Your task to perform on an android device: turn on bluetooth scan Image 0: 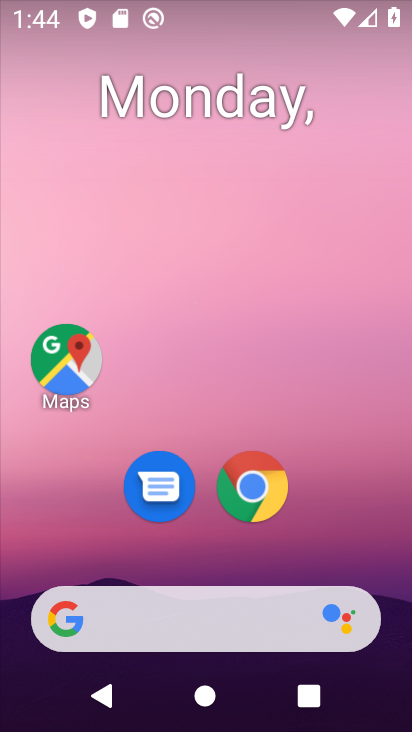
Step 0: drag from (176, 587) to (305, 61)
Your task to perform on an android device: turn on bluetooth scan Image 1: 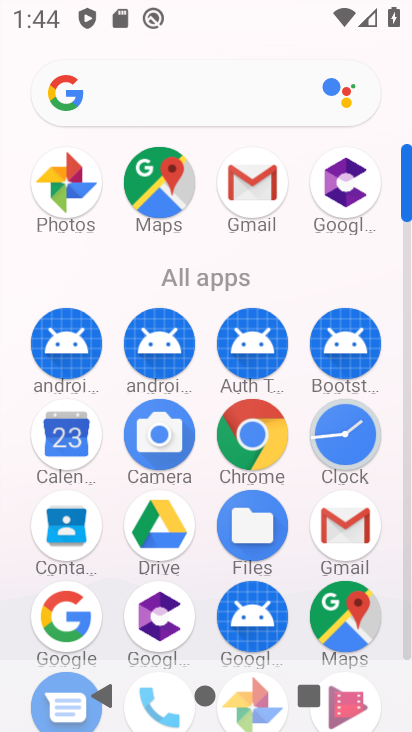
Step 1: drag from (205, 586) to (296, 220)
Your task to perform on an android device: turn on bluetooth scan Image 2: 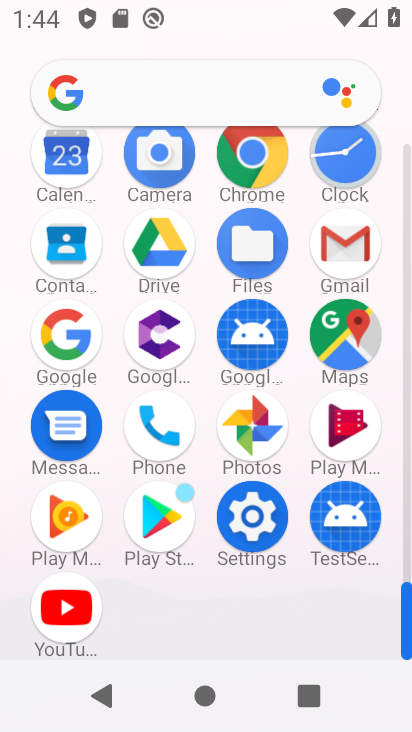
Step 2: click (249, 533)
Your task to perform on an android device: turn on bluetooth scan Image 3: 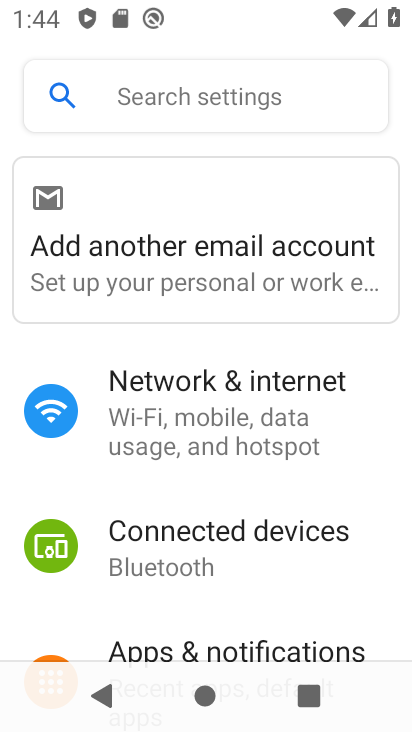
Step 3: drag from (241, 613) to (361, 329)
Your task to perform on an android device: turn on bluetooth scan Image 4: 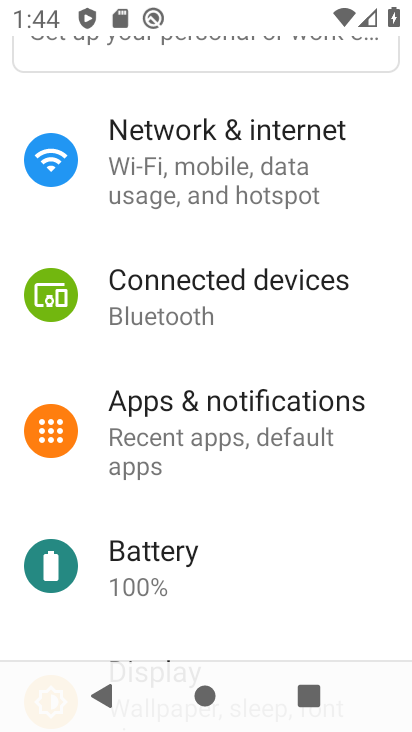
Step 4: drag from (319, 527) to (392, 262)
Your task to perform on an android device: turn on bluetooth scan Image 5: 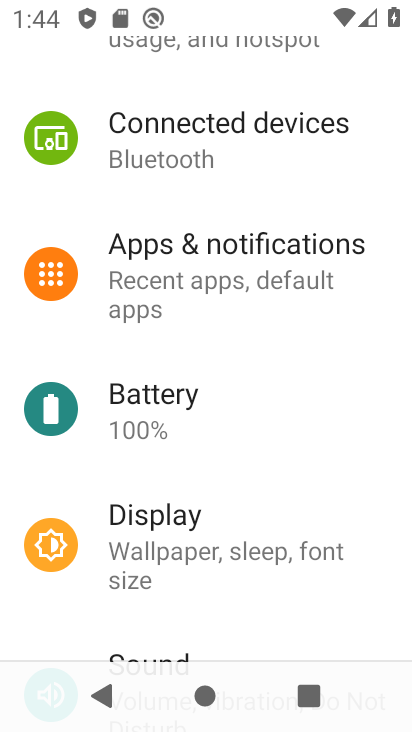
Step 5: drag from (217, 567) to (270, 271)
Your task to perform on an android device: turn on bluetooth scan Image 6: 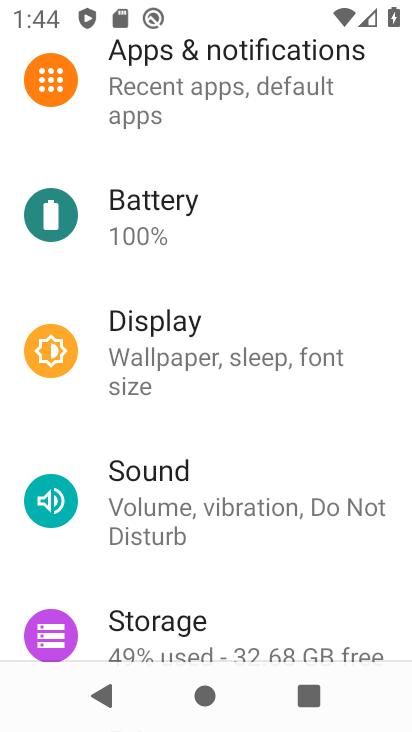
Step 6: drag from (248, 508) to (367, 160)
Your task to perform on an android device: turn on bluetooth scan Image 7: 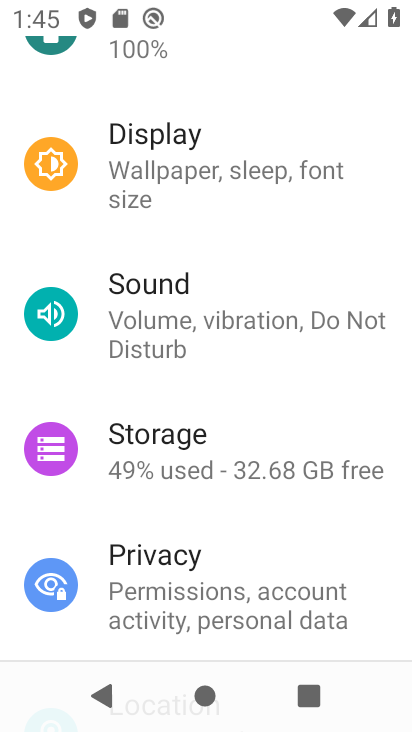
Step 7: drag from (253, 318) to (305, 186)
Your task to perform on an android device: turn on bluetooth scan Image 8: 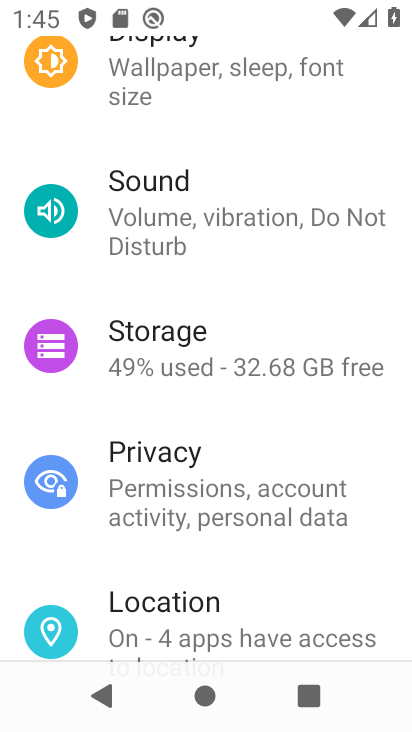
Step 8: click (190, 607)
Your task to perform on an android device: turn on bluetooth scan Image 9: 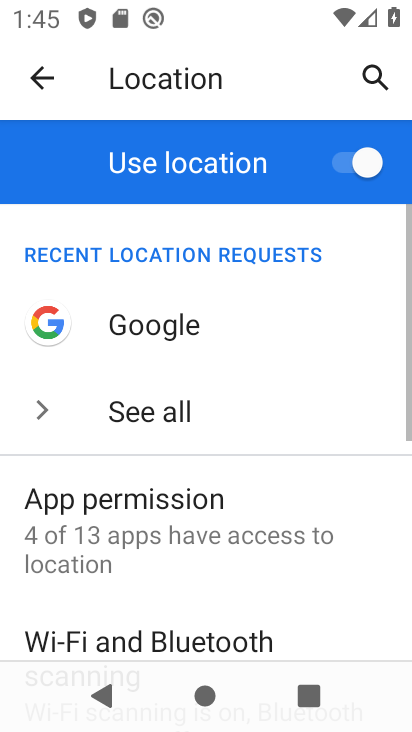
Step 9: drag from (184, 567) to (220, 328)
Your task to perform on an android device: turn on bluetooth scan Image 10: 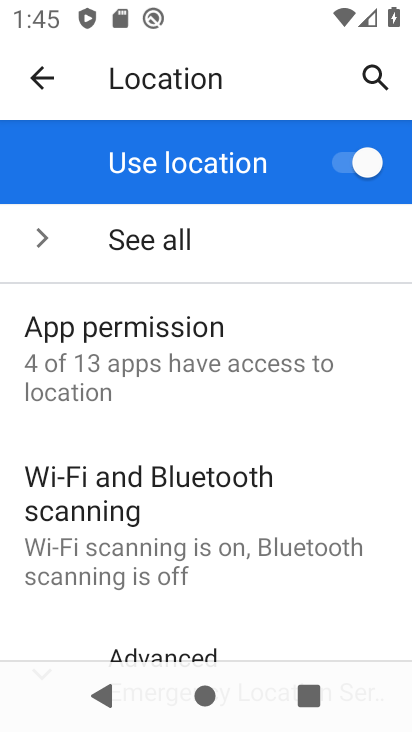
Step 10: click (207, 485)
Your task to perform on an android device: turn on bluetooth scan Image 11: 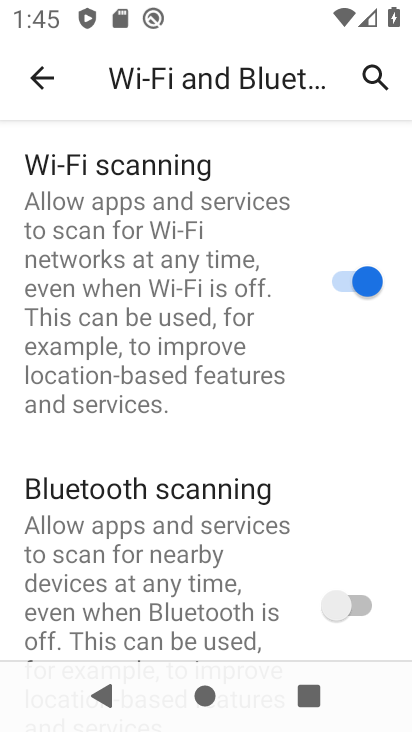
Step 11: click (368, 596)
Your task to perform on an android device: turn on bluetooth scan Image 12: 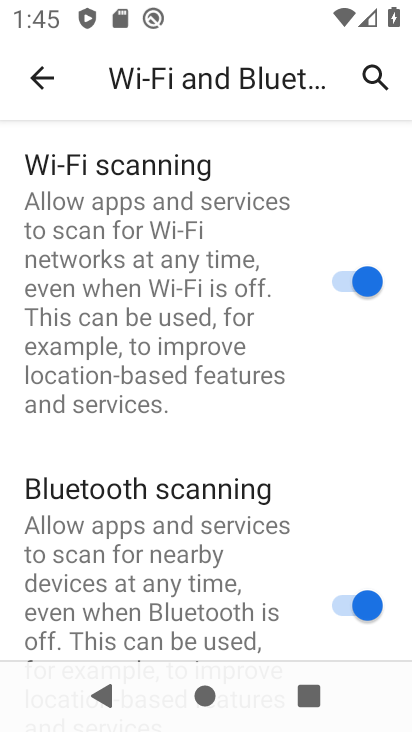
Step 12: task complete